Your task to perform on an android device: Open Google Maps and go to "Timeline" Image 0: 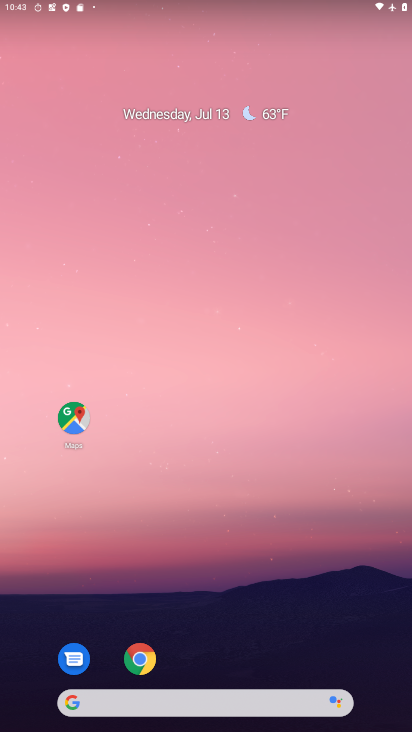
Step 0: drag from (281, 593) to (287, 81)
Your task to perform on an android device: Open Google Maps and go to "Timeline" Image 1: 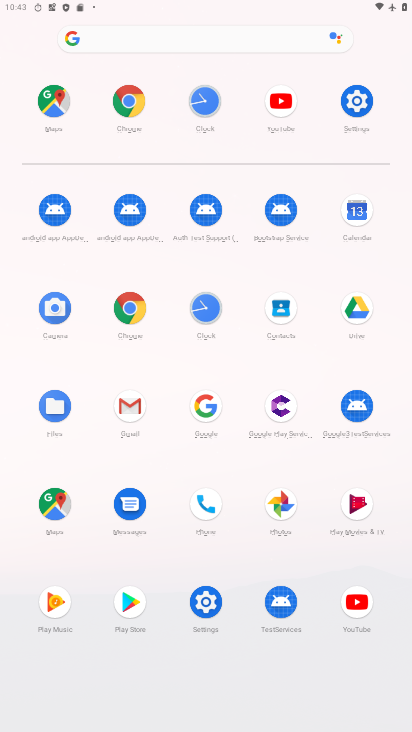
Step 1: click (57, 501)
Your task to perform on an android device: Open Google Maps and go to "Timeline" Image 2: 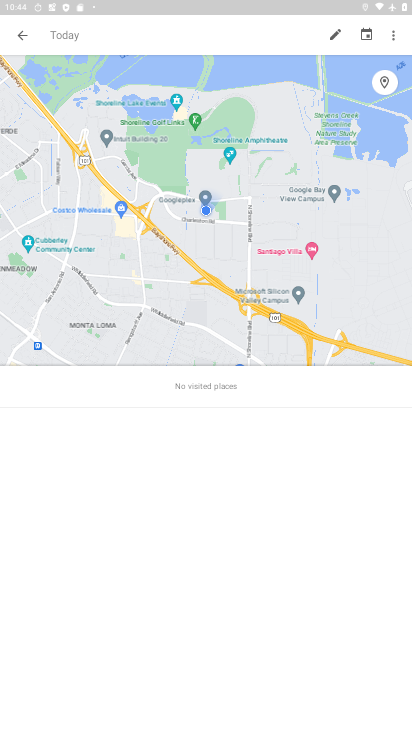
Step 2: task complete